Your task to perform on an android device: allow cookies in the chrome app Image 0: 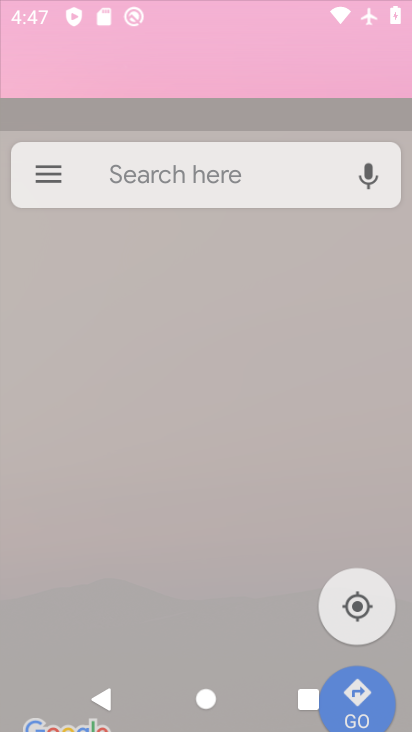
Step 0: click (285, 99)
Your task to perform on an android device: allow cookies in the chrome app Image 1: 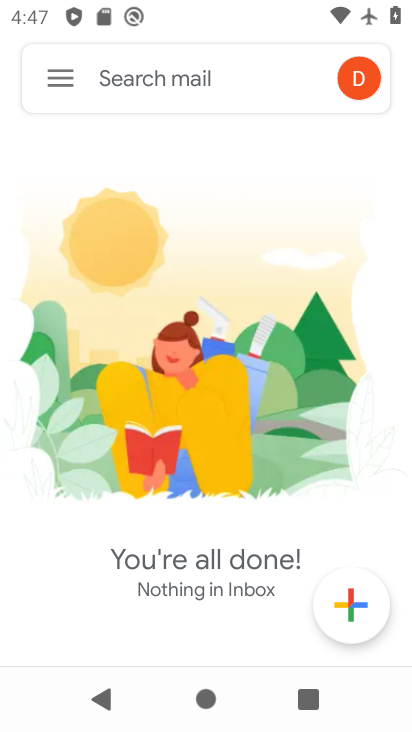
Step 1: press home button
Your task to perform on an android device: allow cookies in the chrome app Image 2: 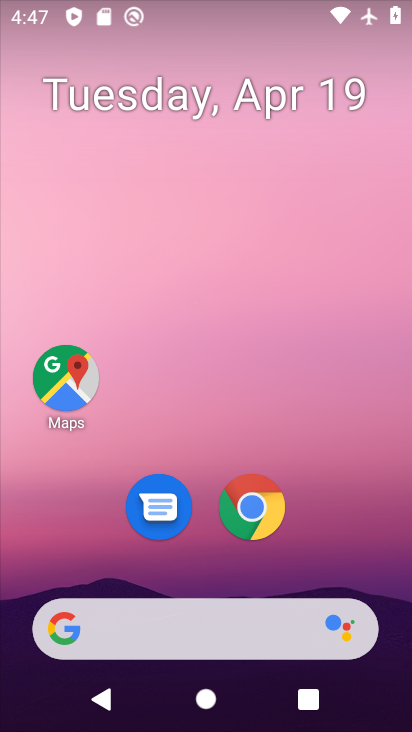
Step 2: click (252, 506)
Your task to perform on an android device: allow cookies in the chrome app Image 3: 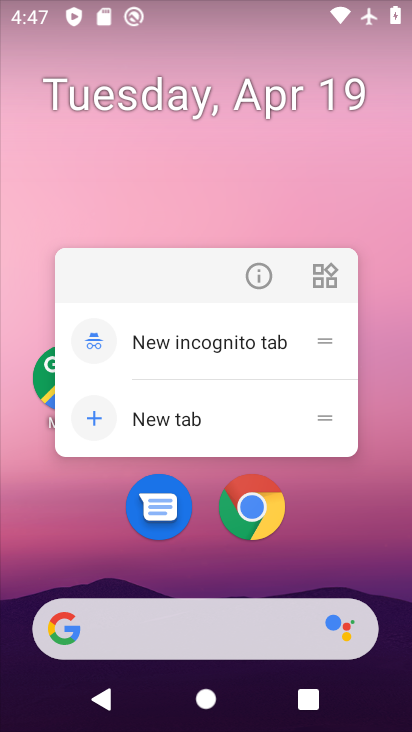
Step 3: drag from (338, 544) to (305, 1)
Your task to perform on an android device: allow cookies in the chrome app Image 4: 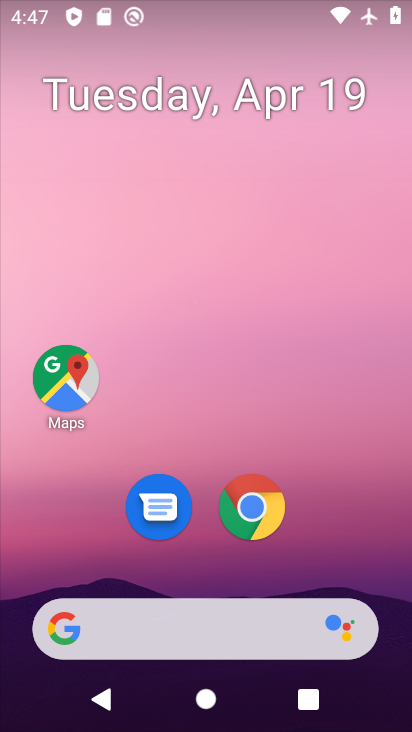
Step 4: drag from (338, 492) to (301, 69)
Your task to perform on an android device: allow cookies in the chrome app Image 5: 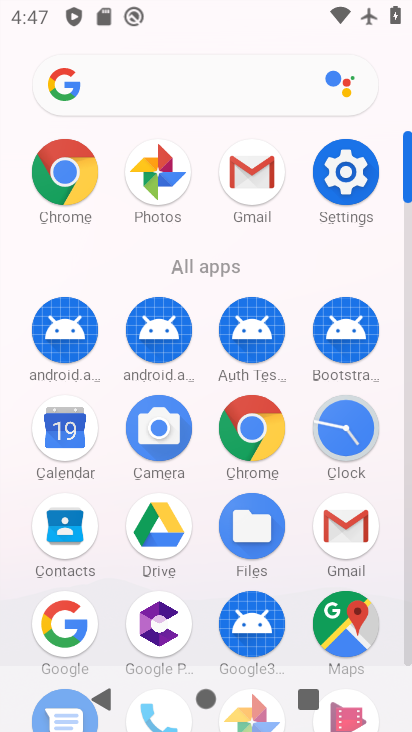
Step 5: click (256, 434)
Your task to perform on an android device: allow cookies in the chrome app Image 6: 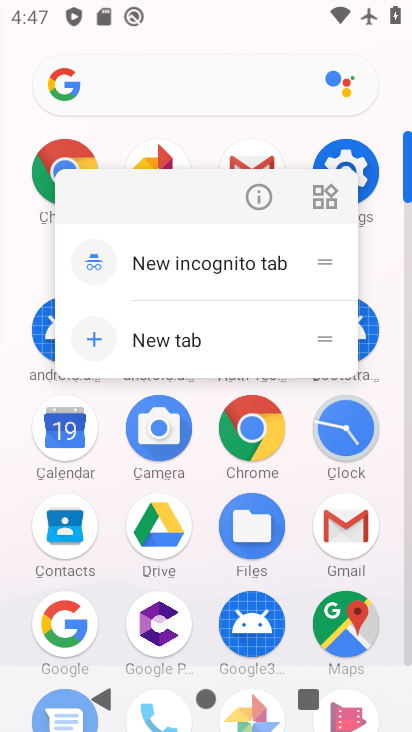
Step 6: click (247, 420)
Your task to perform on an android device: allow cookies in the chrome app Image 7: 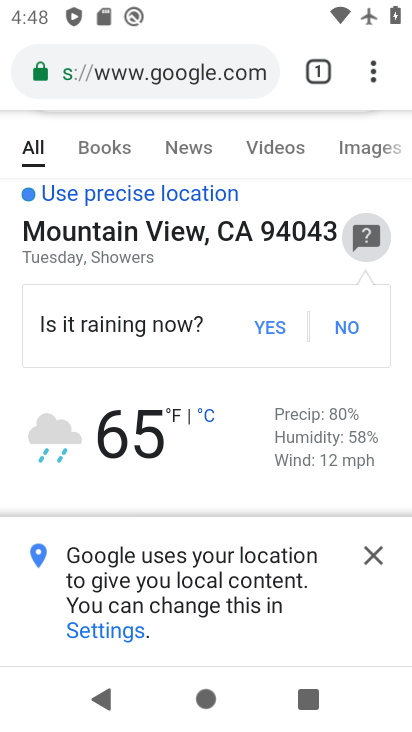
Step 7: drag from (370, 73) to (159, 490)
Your task to perform on an android device: allow cookies in the chrome app Image 8: 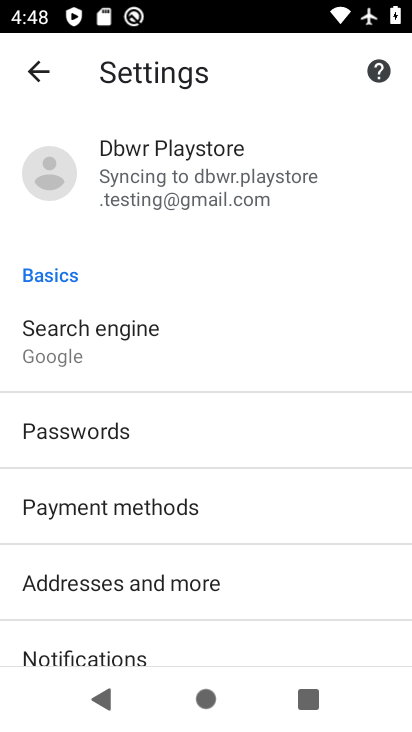
Step 8: drag from (256, 612) to (363, 188)
Your task to perform on an android device: allow cookies in the chrome app Image 9: 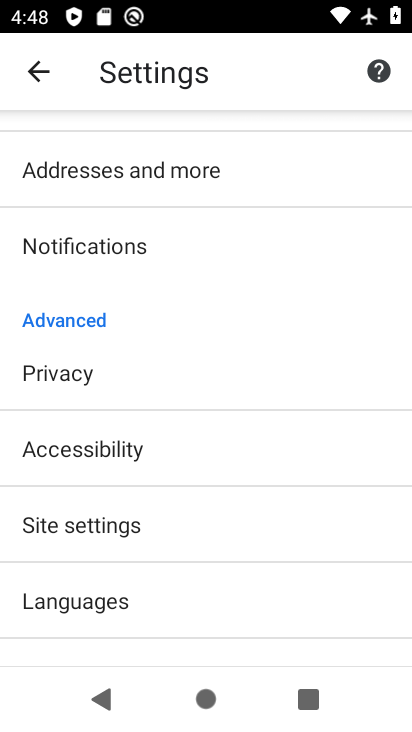
Step 9: click (73, 522)
Your task to perform on an android device: allow cookies in the chrome app Image 10: 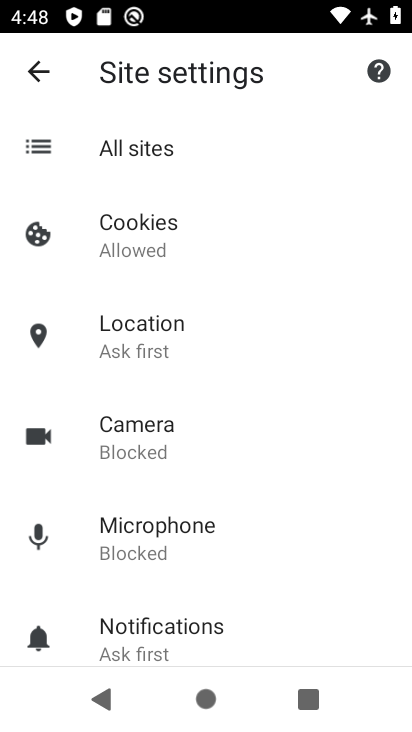
Step 10: click (177, 234)
Your task to perform on an android device: allow cookies in the chrome app Image 11: 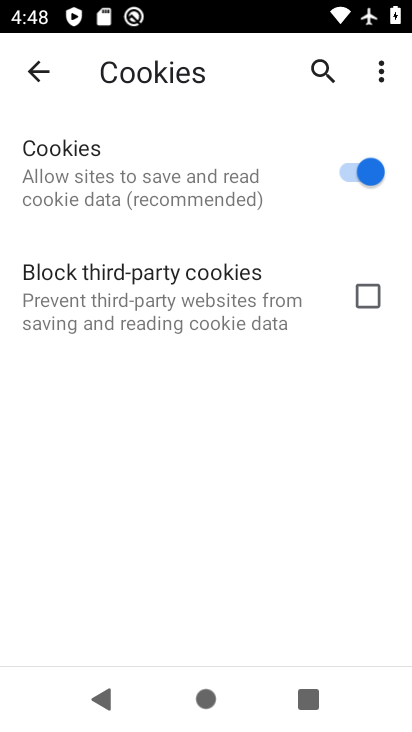
Step 11: task complete